Your task to perform on an android device: uninstall "Upside-Cash back on gas & food" Image 0: 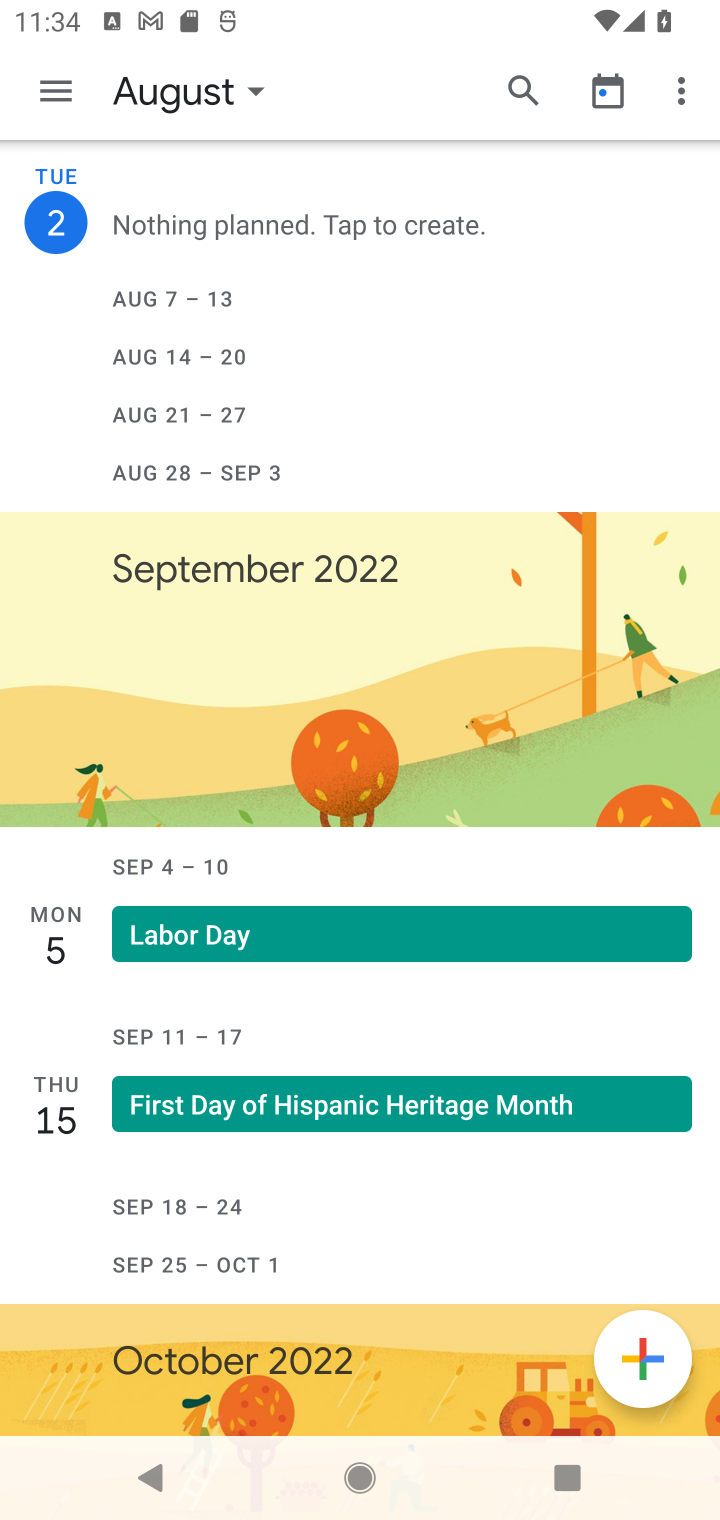
Step 0: press home button
Your task to perform on an android device: uninstall "Upside-Cash back on gas & food" Image 1: 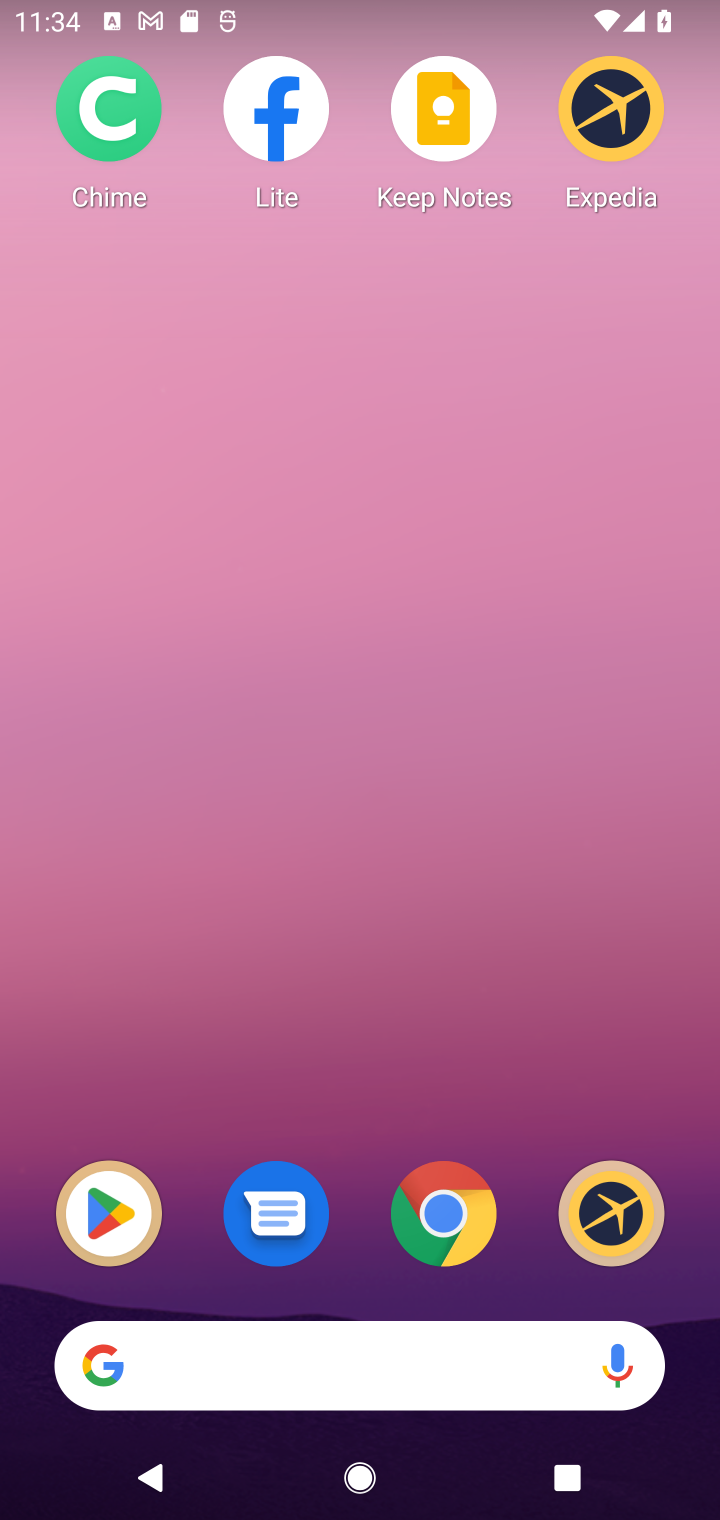
Step 1: click (142, 1228)
Your task to perform on an android device: uninstall "Upside-Cash back on gas & food" Image 2: 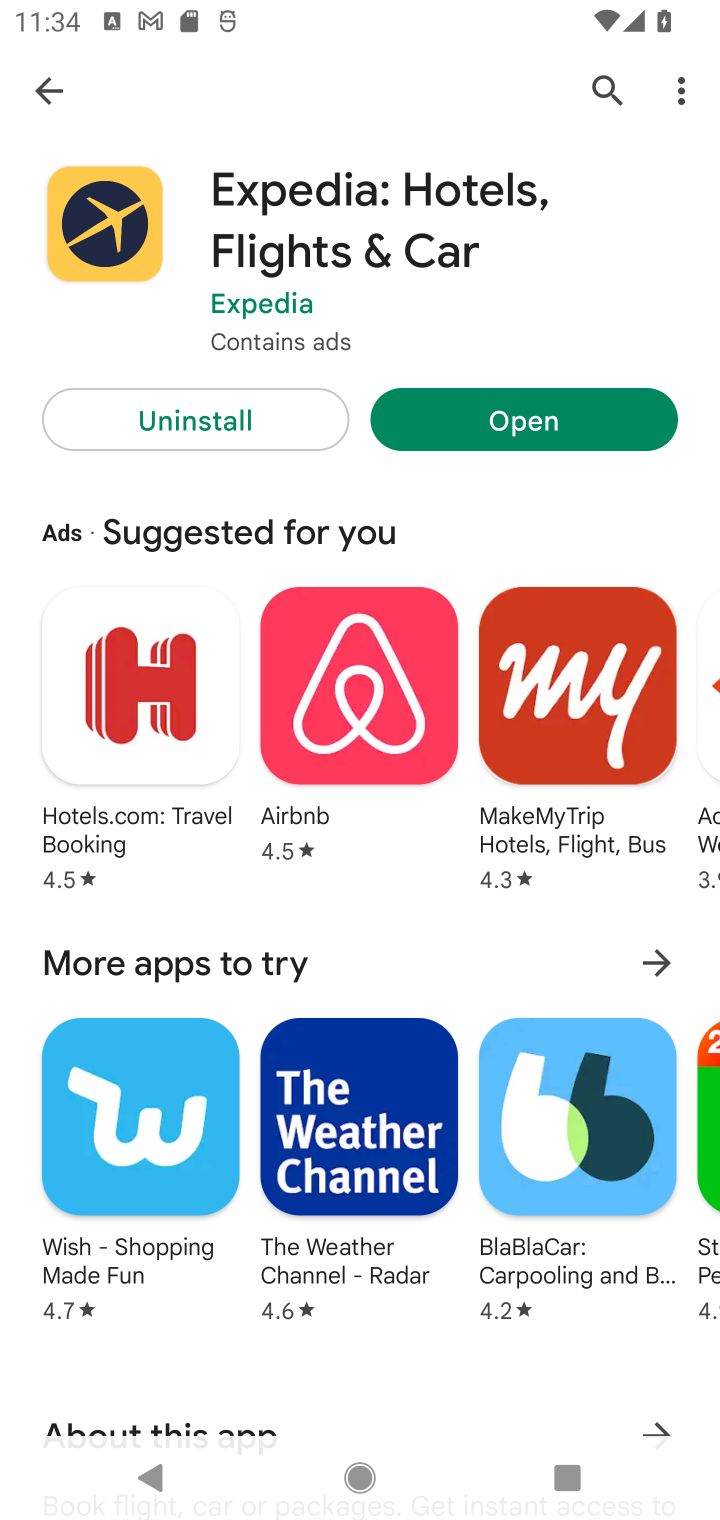
Step 2: click (64, 102)
Your task to perform on an android device: uninstall "Upside-Cash back on gas & food" Image 3: 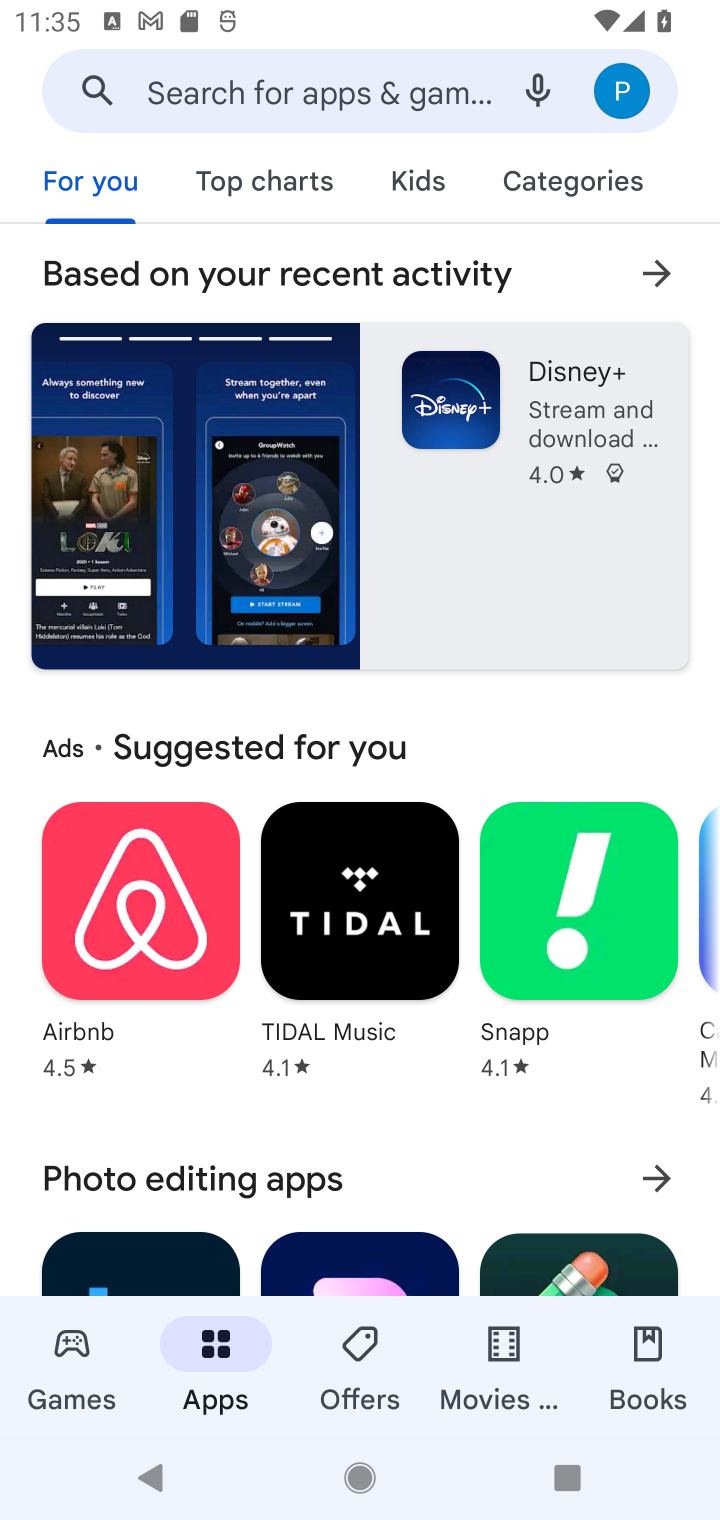
Step 3: click (292, 83)
Your task to perform on an android device: uninstall "Upside-Cash back on gas & food" Image 4: 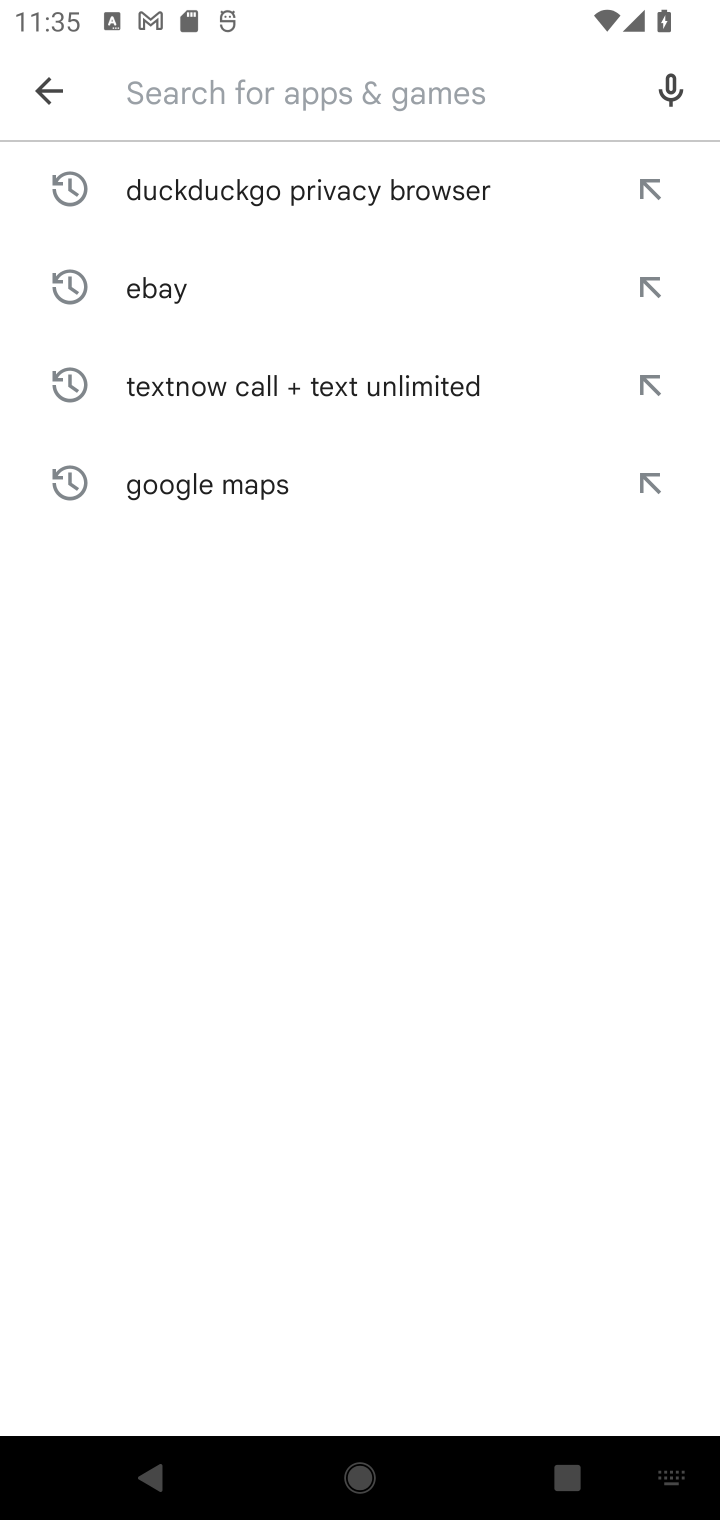
Step 4: type "Upside-Cash back on gas & food"
Your task to perform on an android device: uninstall "Upside-Cash back on gas & food" Image 5: 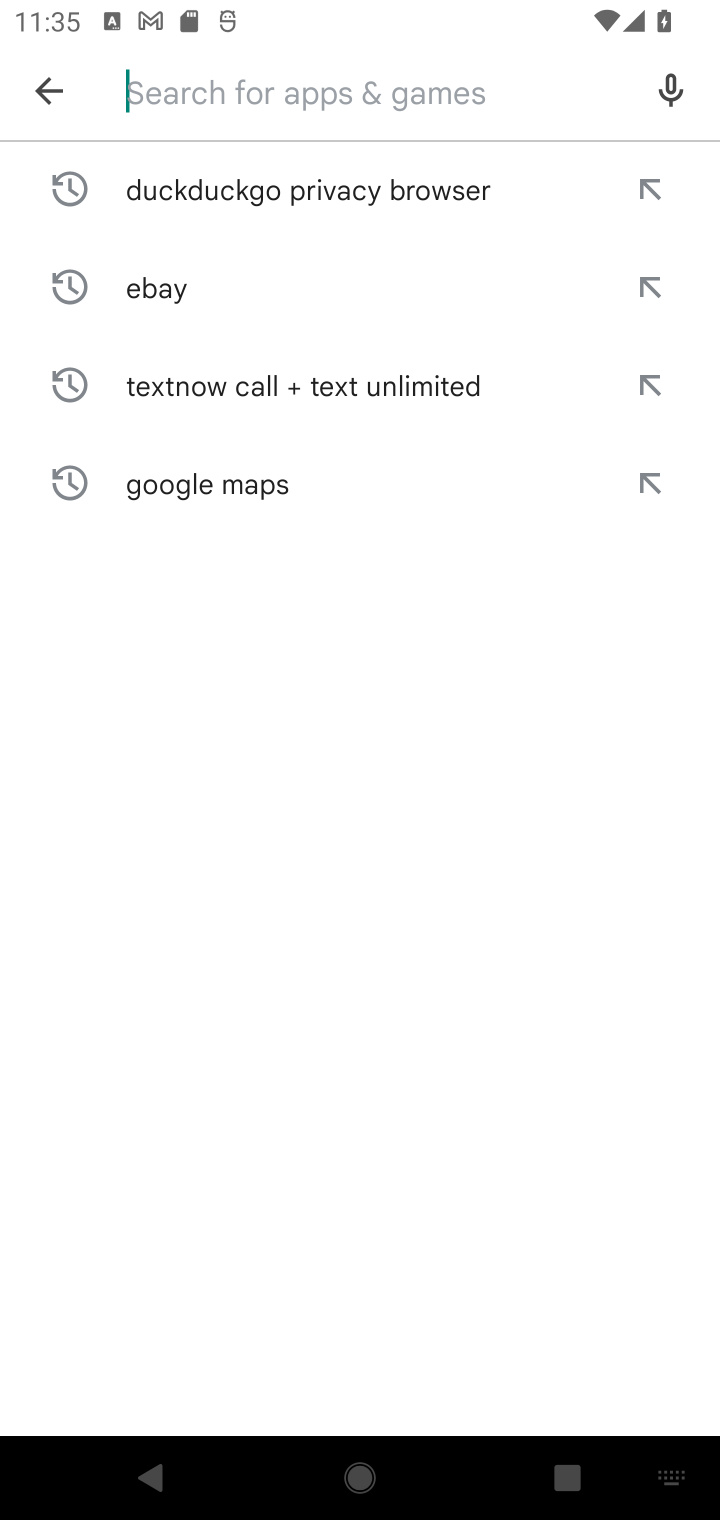
Step 5: click (447, 204)
Your task to perform on an android device: uninstall "Upside-Cash back on gas & food" Image 6: 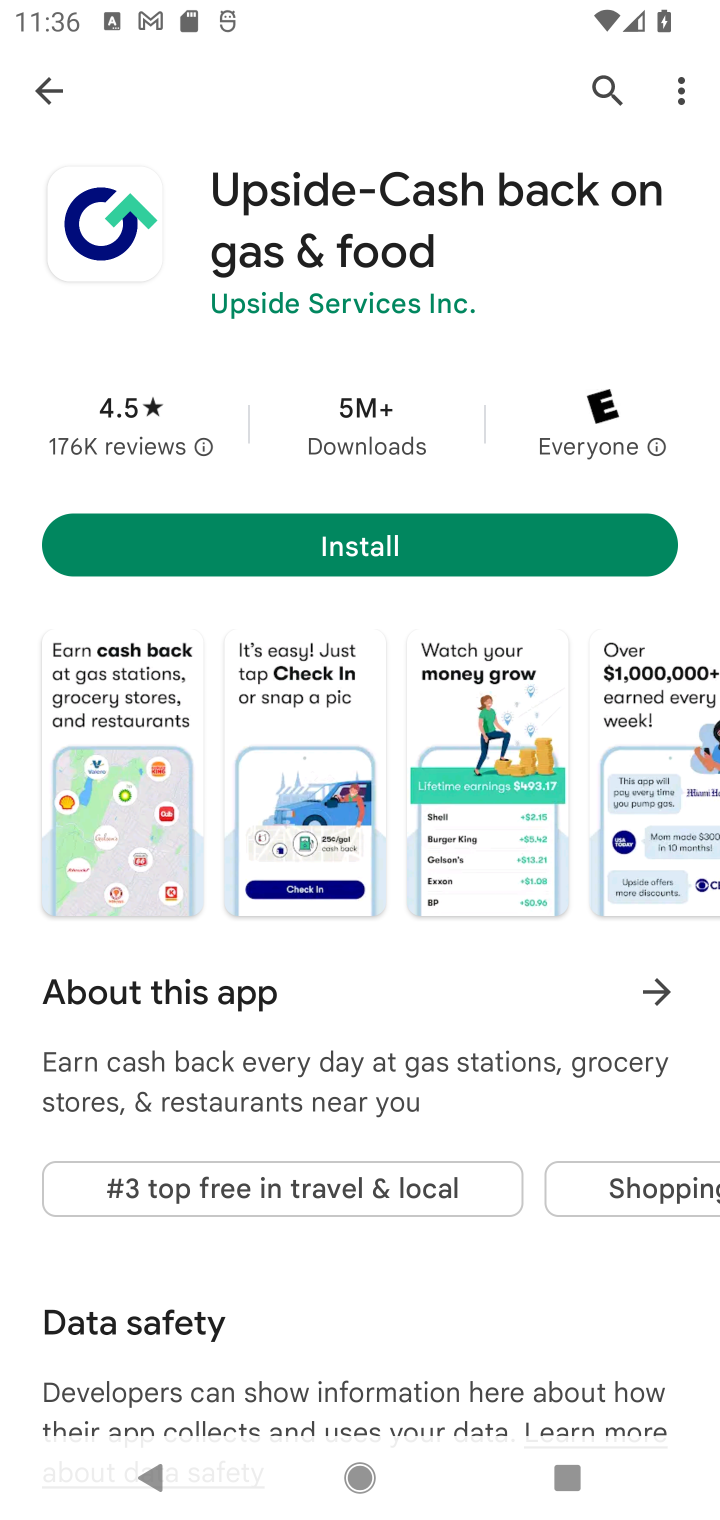
Step 6: task complete